Your task to perform on an android device: toggle priority inbox in the gmail app Image 0: 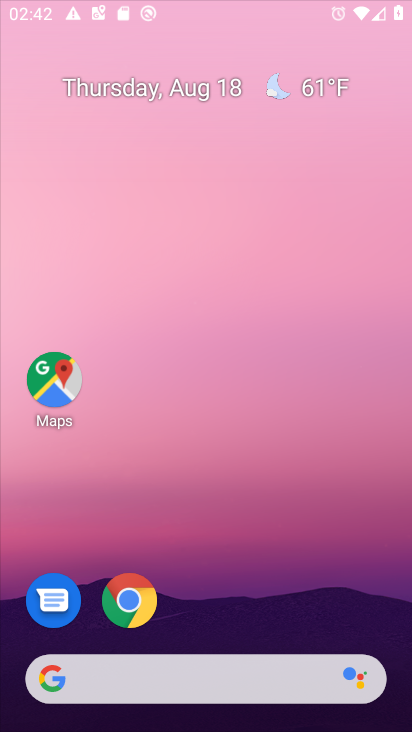
Step 0: press home button
Your task to perform on an android device: toggle priority inbox in the gmail app Image 1: 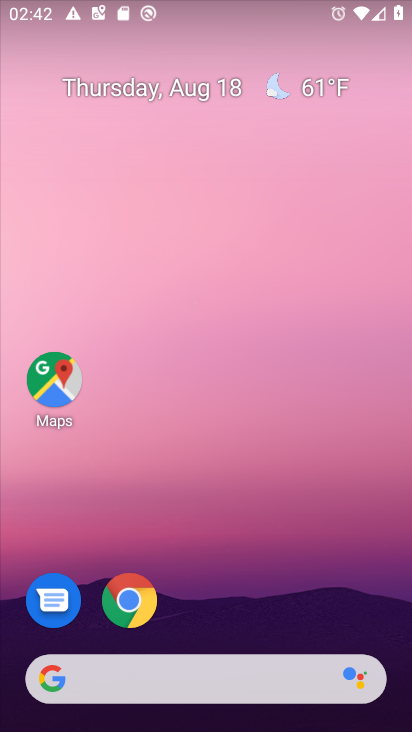
Step 1: drag from (262, 583) to (267, 25)
Your task to perform on an android device: toggle priority inbox in the gmail app Image 2: 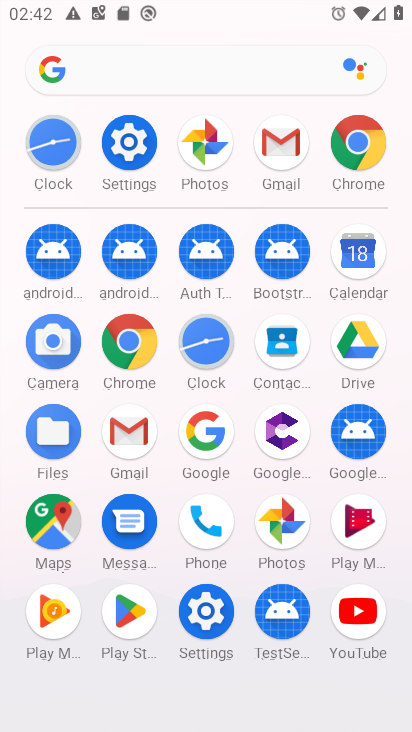
Step 2: click (282, 140)
Your task to perform on an android device: toggle priority inbox in the gmail app Image 3: 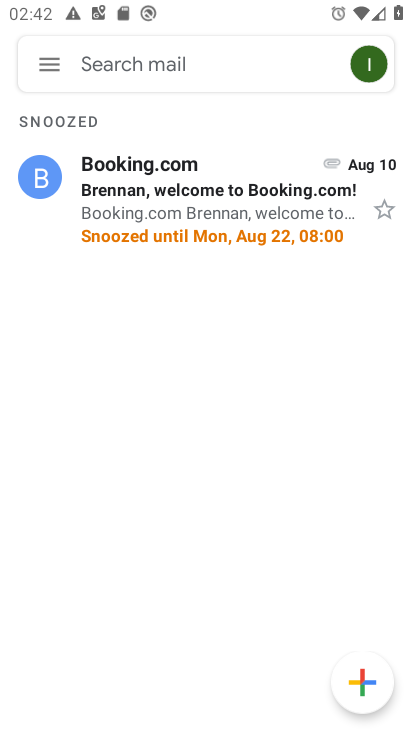
Step 3: click (44, 55)
Your task to perform on an android device: toggle priority inbox in the gmail app Image 4: 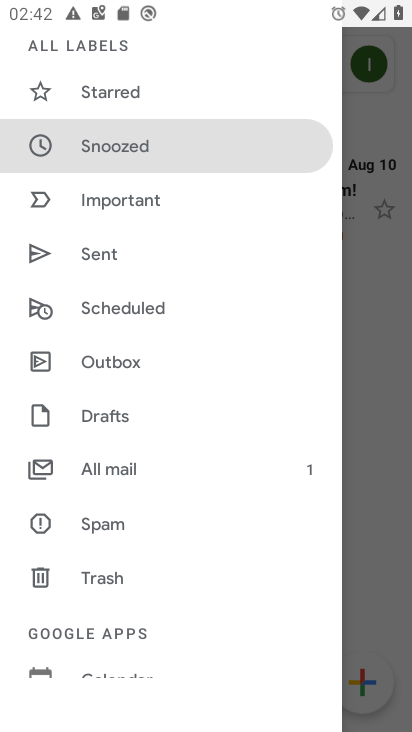
Step 4: drag from (202, 616) to (262, 270)
Your task to perform on an android device: toggle priority inbox in the gmail app Image 5: 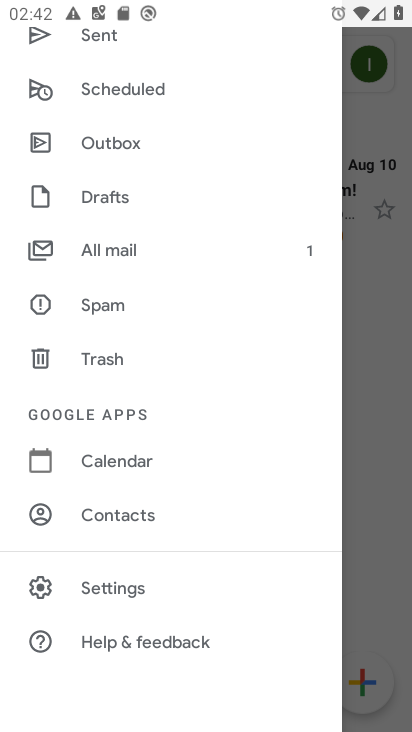
Step 5: click (140, 592)
Your task to perform on an android device: toggle priority inbox in the gmail app Image 6: 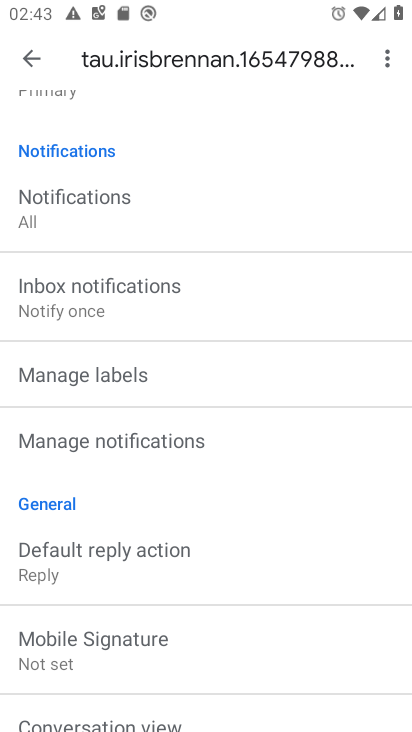
Step 6: drag from (133, 119) to (164, 262)
Your task to perform on an android device: toggle priority inbox in the gmail app Image 7: 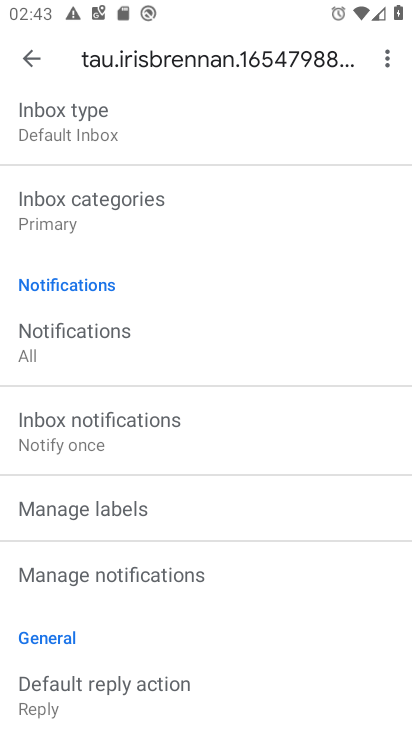
Step 7: click (70, 127)
Your task to perform on an android device: toggle priority inbox in the gmail app Image 8: 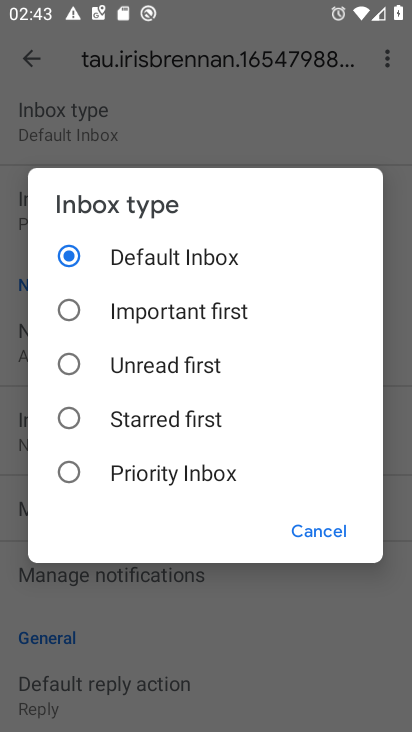
Step 8: click (76, 467)
Your task to perform on an android device: toggle priority inbox in the gmail app Image 9: 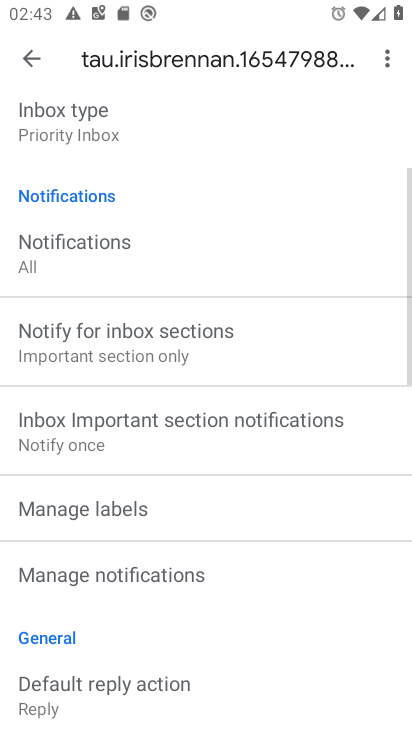
Step 9: task complete